Your task to perform on an android device: move an email to a new category in the gmail app Image 0: 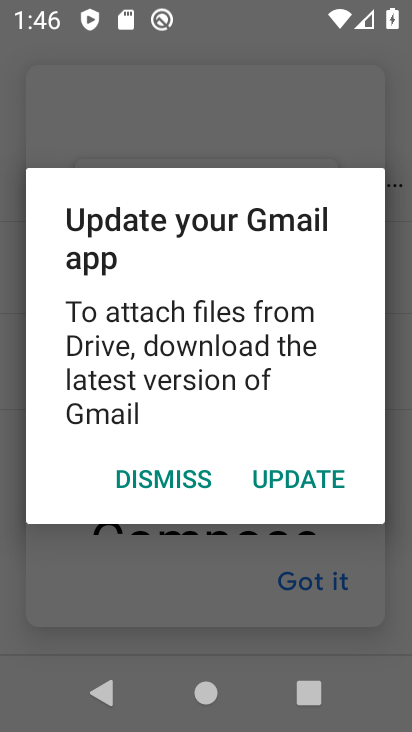
Step 0: press home button
Your task to perform on an android device: move an email to a new category in the gmail app Image 1: 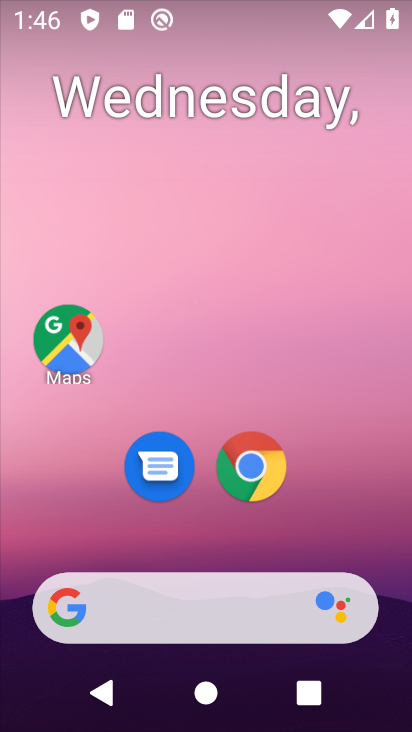
Step 1: drag from (350, 373) to (291, 16)
Your task to perform on an android device: move an email to a new category in the gmail app Image 2: 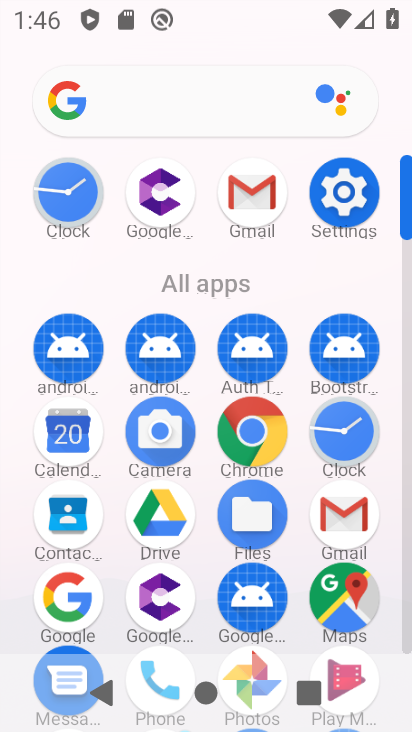
Step 2: drag from (6, 526) to (0, 252)
Your task to perform on an android device: move an email to a new category in the gmail app Image 3: 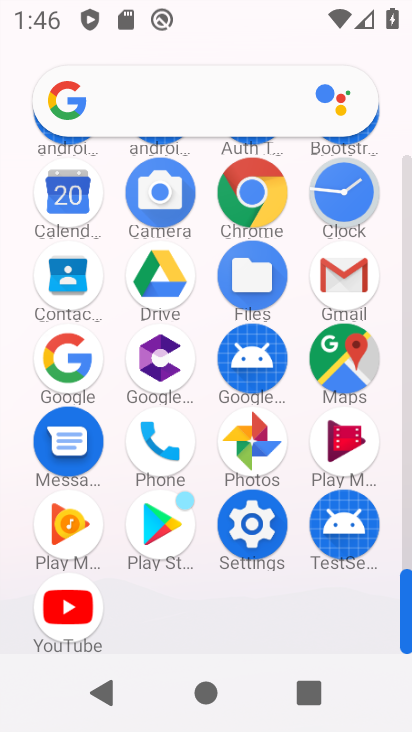
Step 3: click (346, 272)
Your task to perform on an android device: move an email to a new category in the gmail app Image 4: 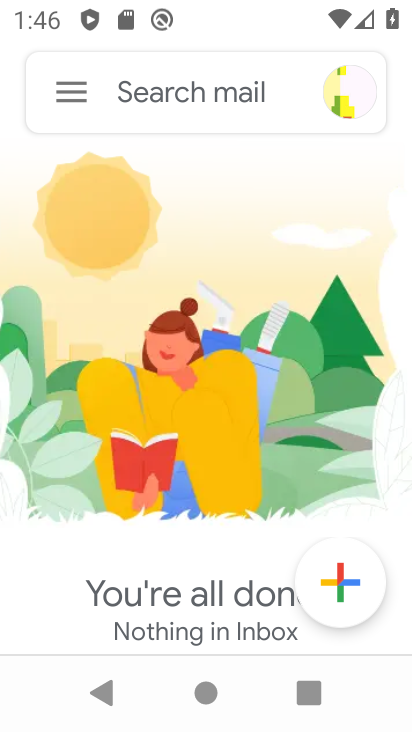
Step 4: click (73, 76)
Your task to perform on an android device: move an email to a new category in the gmail app Image 5: 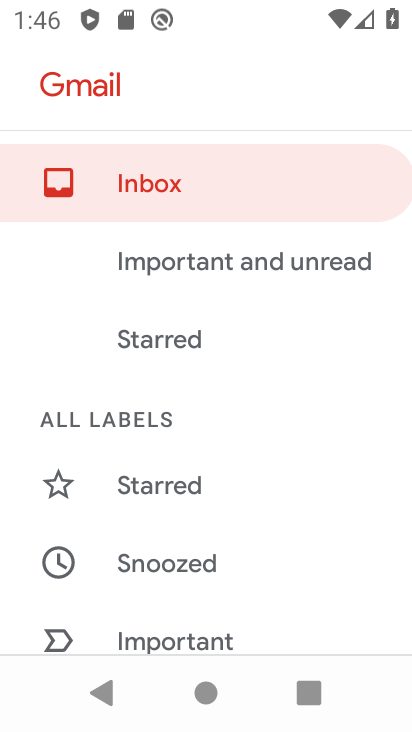
Step 5: drag from (281, 537) to (273, 131)
Your task to perform on an android device: move an email to a new category in the gmail app Image 6: 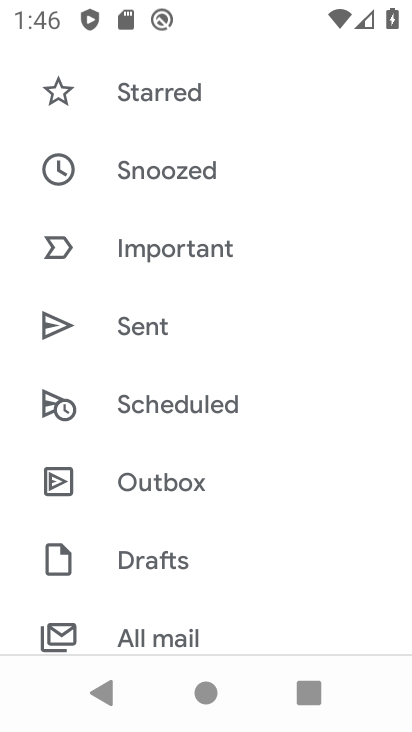
Step 6: drag from (288, 495) to (277, 173)
Your task to perform on an android device: move an email to a new category in the gmail app Image 7: 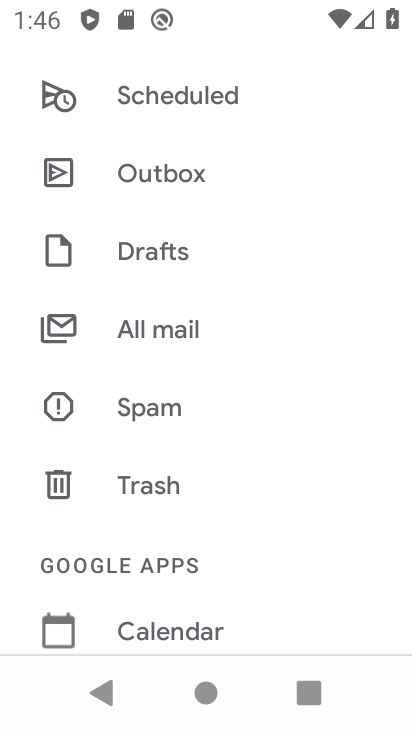
Step 7: click (188, 321)
Your task to perform on an android device: move an email to a new category in the gmail app Image 8: 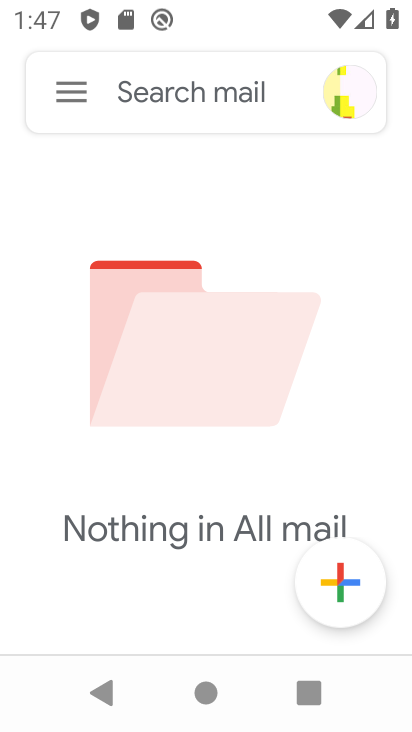
Step 8: task complete